Your task to perform on an android device: turn on location history Image 0: 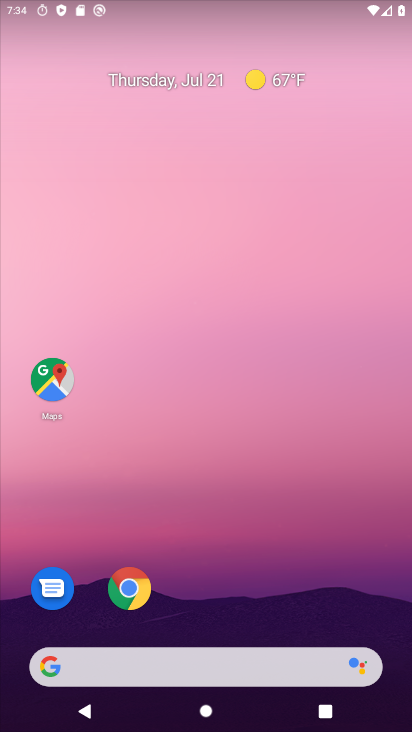
Step 0: drag from (191, 648) to (245, 142)
Your task to perform on an android device: turn on location history Image 1: 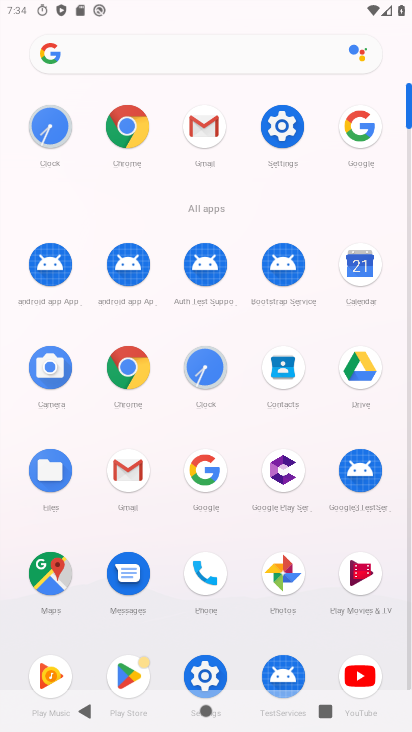
Step 1: click (280, 128)
Your task to perform on an android device: turn on location history Image 2: 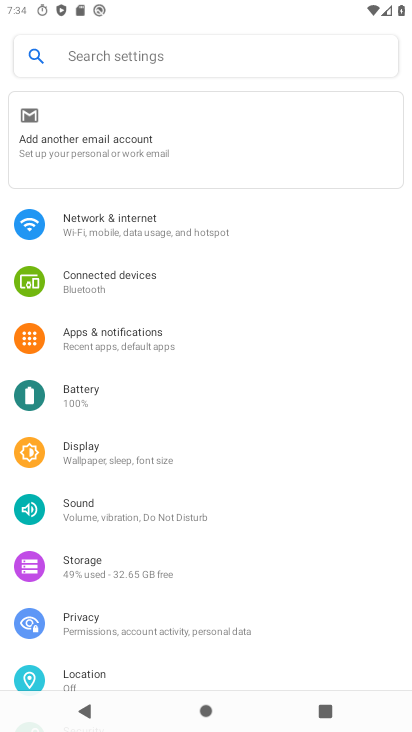
Step 2: click (70, 681)
Your task to perform on an android device: turn on location history Image 3: 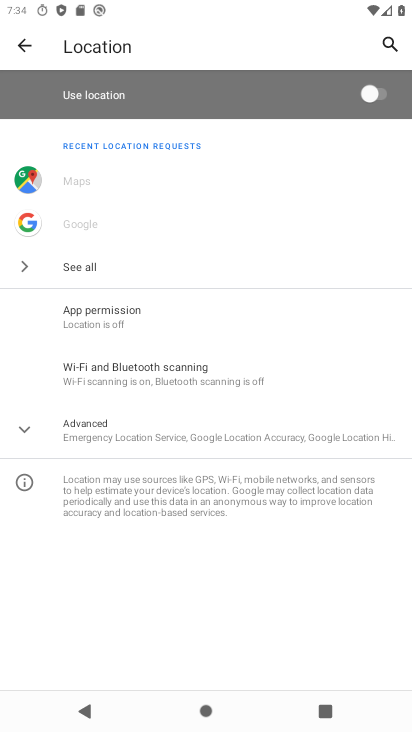
Step 3: click (125, 438)
Your task to perform on an android device: turn on location history Image 4: 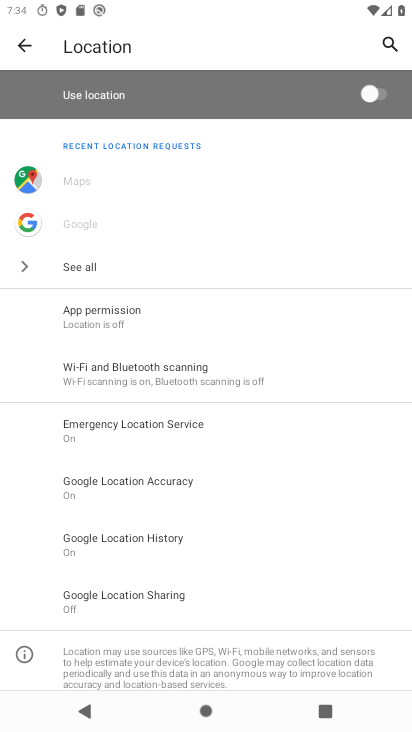
Step 4: click (105, 532)
Your task to perform on an android device: turn on location history Image 5: 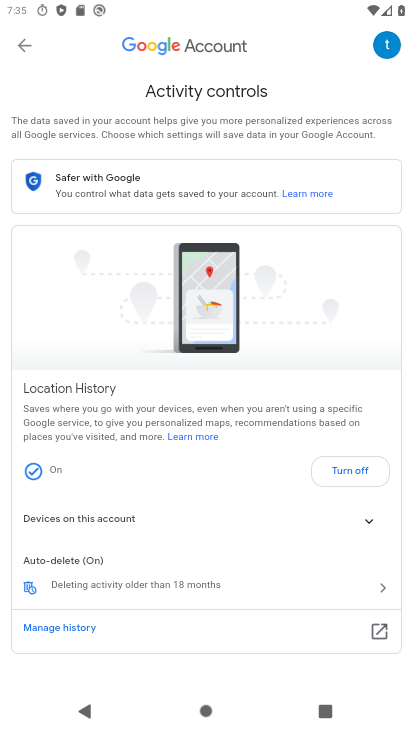
Step 5: task complete